Your task to perform on an android device: install app "Fetch Rewards" Image 0: 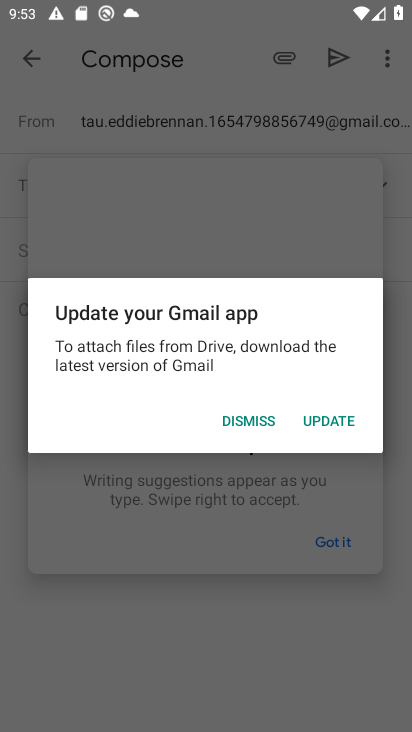
Step 0: press home button
Your task to perform on an android device: install app "Fetch Rewards" Image 1: 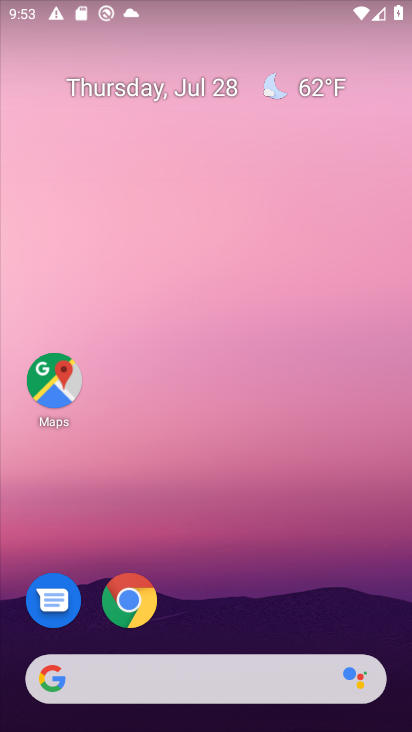
Step 1: drag from (268, 635) to (272, 37)
Your task to perform on an android device: install app "Fetch Rewards" Image 2: 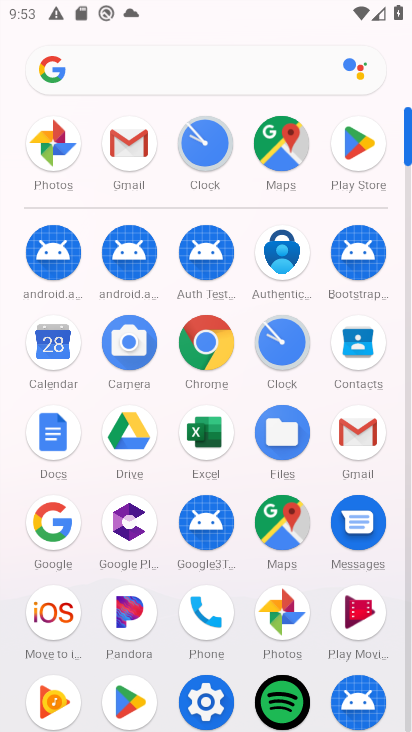
Step 2: click (351, 150)
Your task to perform on an android device: install app "Fetch Rewards" Image 3: 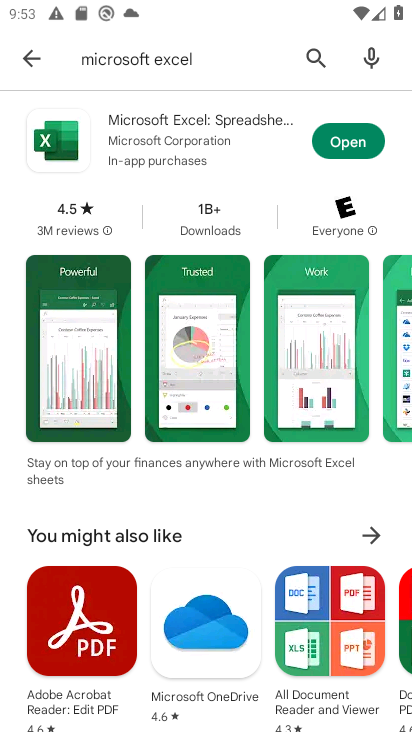
Step 3: click (318, 54)
Your task to perform on an android device: install app "Fetch Rewards" Image 4: 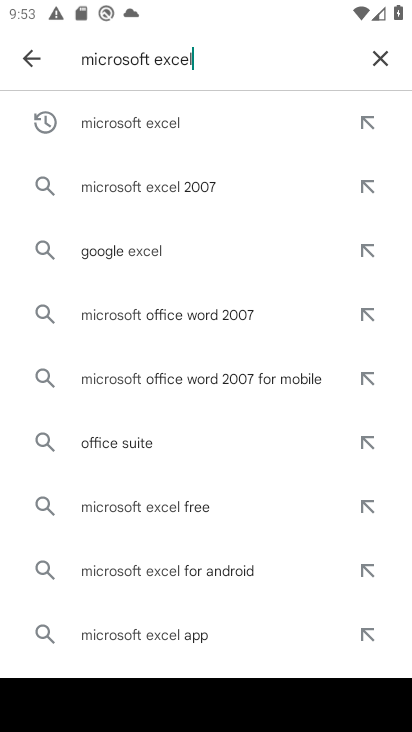
Step 4: click (372, 63)
Your task to perform on an android device: install app "Fetch Rewards" Image 5: 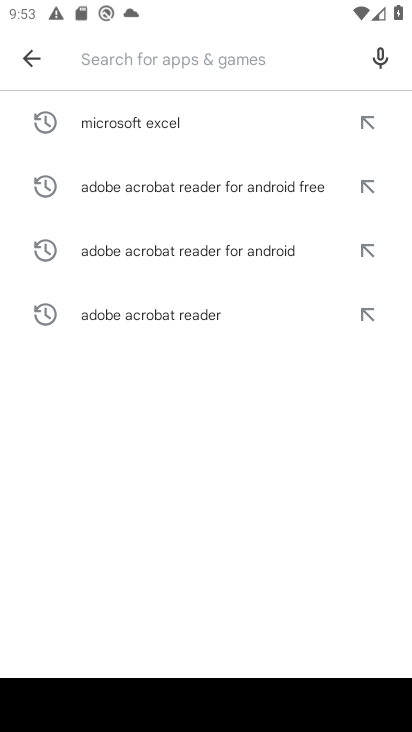
Step 5: type "Fetch Rewards"
Your task to perform on an android device: install app "Fetch Rewards" Image 6: 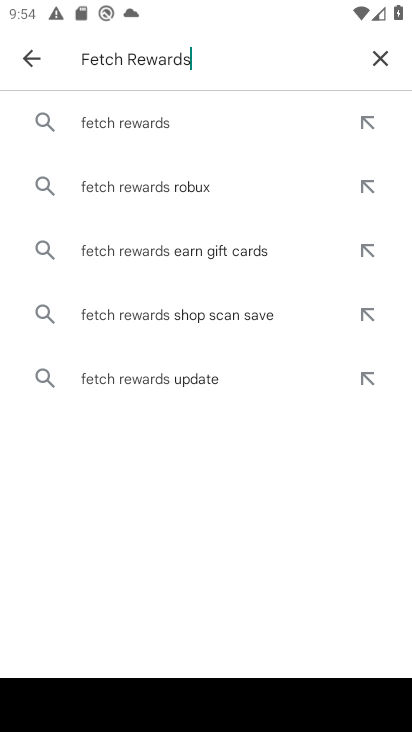
Step 6: click (143, 135)
Your task to perform on an android device: install app "Fetch Rewards" Image 7: 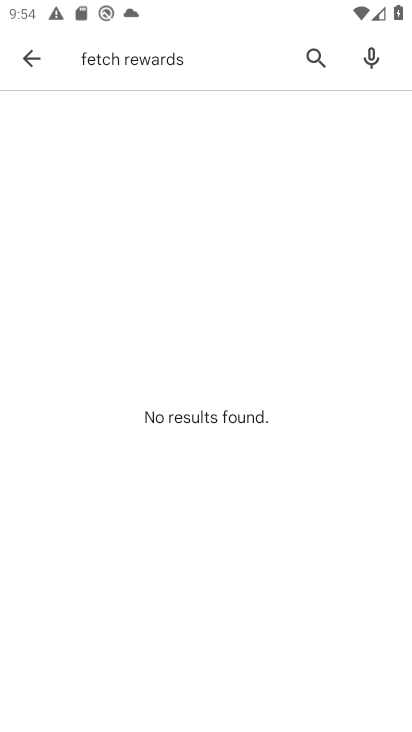
Step 7: task complete